Your task to perform on an android device: Open ESPN.com Image 0: 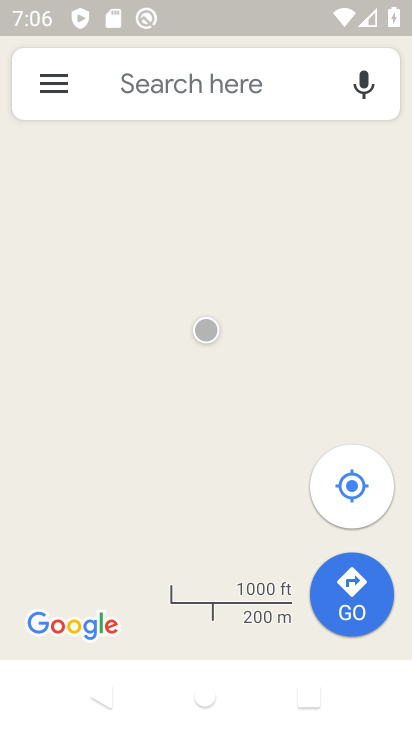
Step 0: press home button
Your task to perform on an android device: Open ESPN.com Image 1: 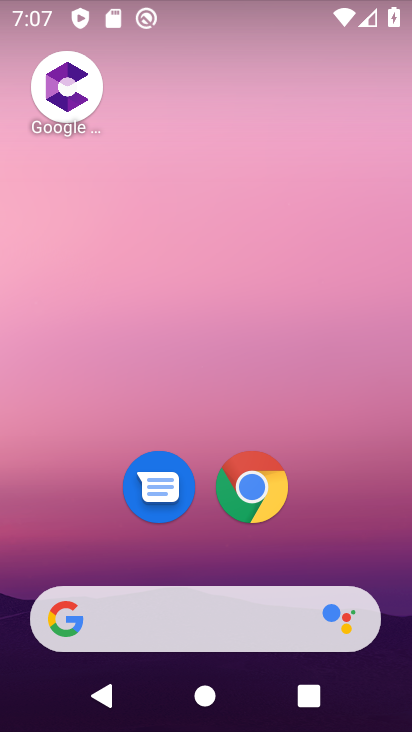
Step 1: click (257, 489)
Your task to perform on an android device: Open ESPN.com Image 2: 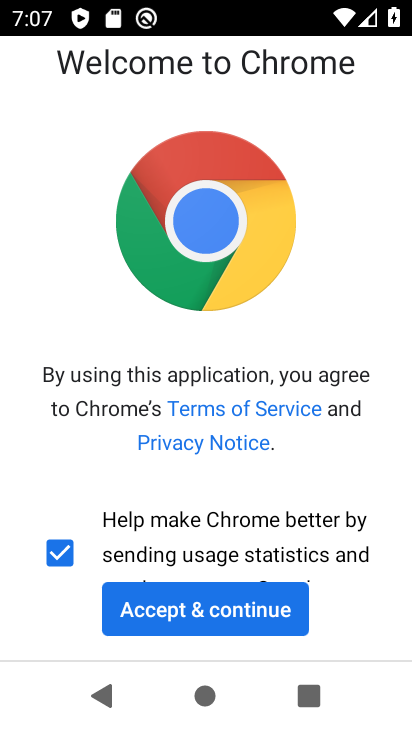
Step 2: click (214, 611)
Your task to perform on an android device: Open ESPN.com Image 3: 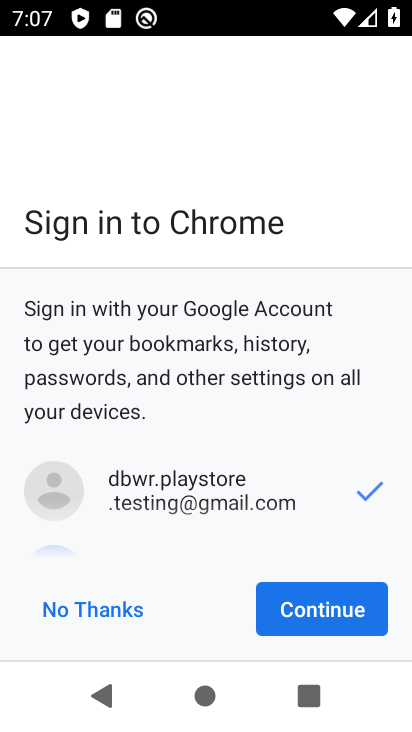
Step 3: click (329, 613)
Your task to perform on an android device: Open ESPN.com Image 4: 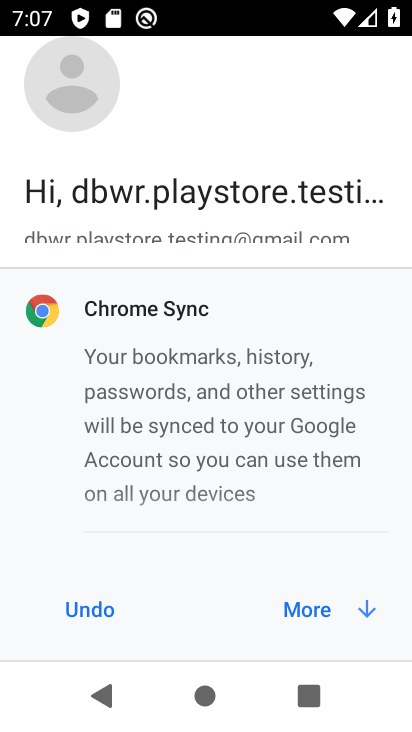
Step 4: click (360, 606)
Your task to perform on an android device: Open ESPN.com Image 5: 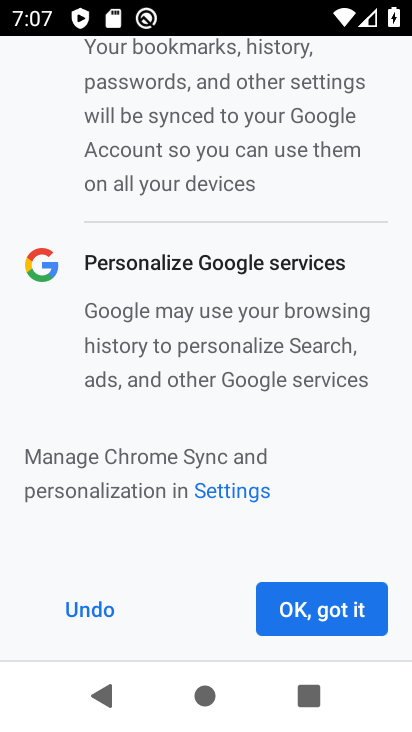
Step 5: click (343, 613)
Your task to perform on an android device: Open ESPN.com Image 6: 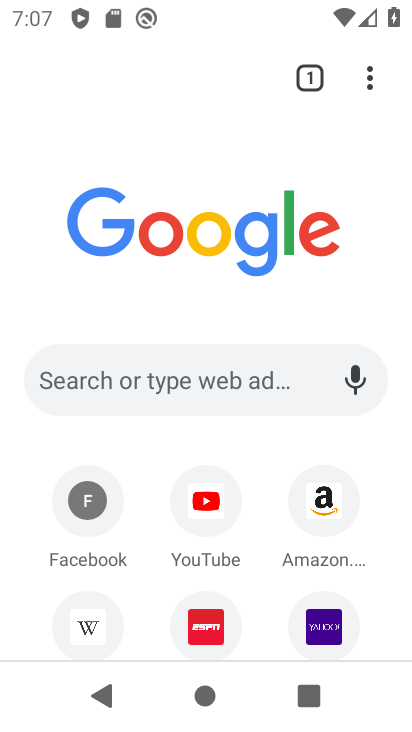
Step 6: click (192, 639)
Your task to perform on an android device: Open ESPN.com Image 7: 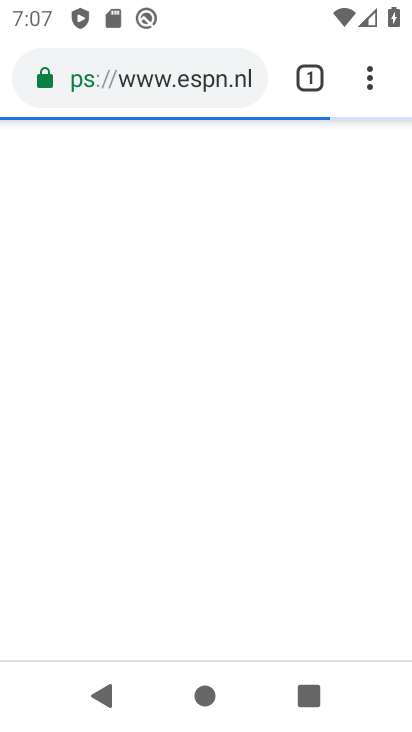
Step 7: task complete